Your task to perform on an android device: Open the phone app and click the voicemail tab. Image 0: 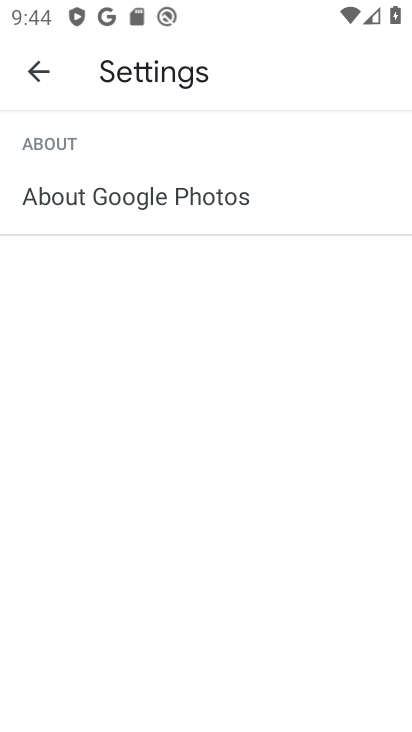
Step 0: press home button
Your task to perform on an android device: Open the phone app and click the voicemail tab. Image 1: 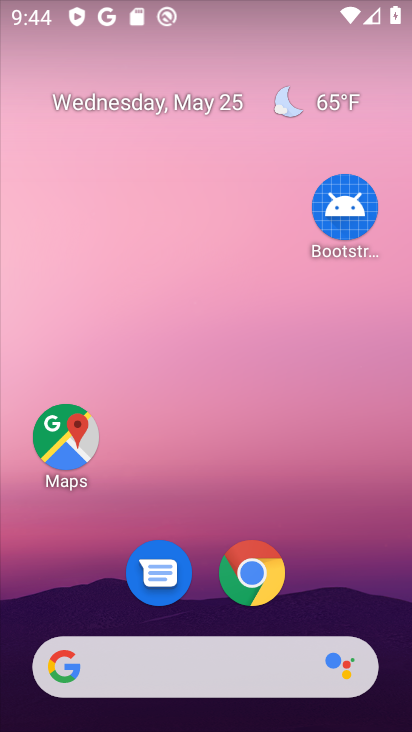
Step 1: drag from (333, 560) to (307, 48)
Your task to perform on an android device: Open the phone app and click the voicemail tab. Image 2: 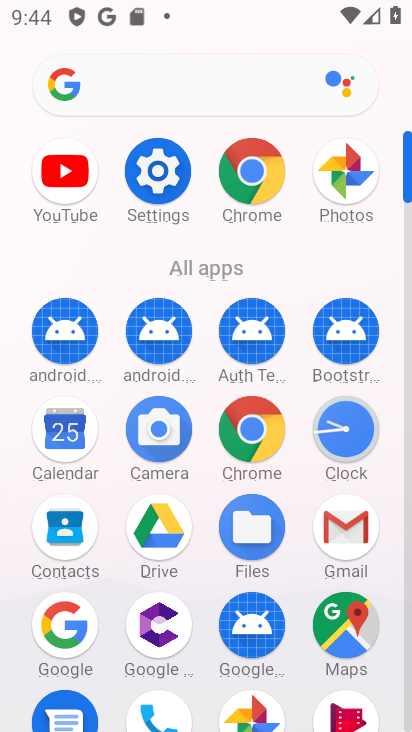
Step 2: drag from (302, 295) to (278, 98)
Your task to perform on an android device: Open the phone app and click the voicemail tab. Image 3: 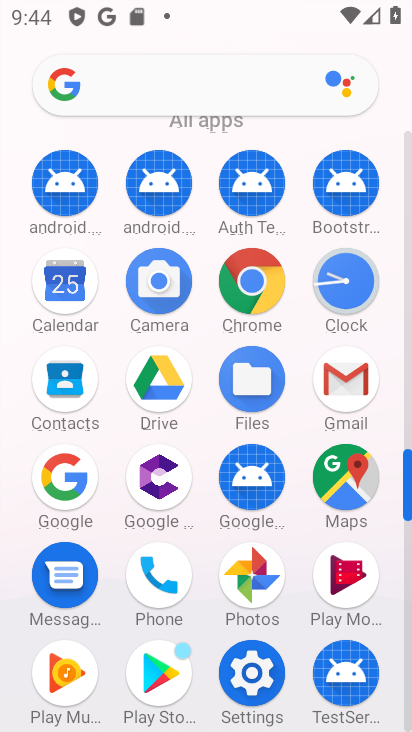
Step 3: click (140, 570)
Your task to perform on an android device: Open the phone app and click the voicemail tab. Image 4: 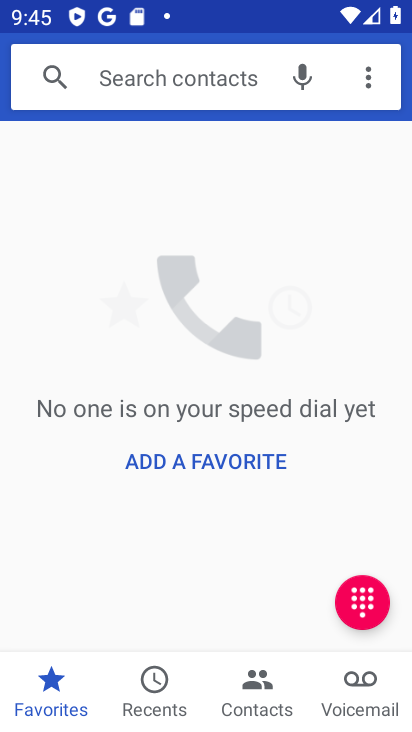
Step 4: click (345, 679)
Your task to perform on an android device: Open the phone app and click the voicemail tab. Image 5: 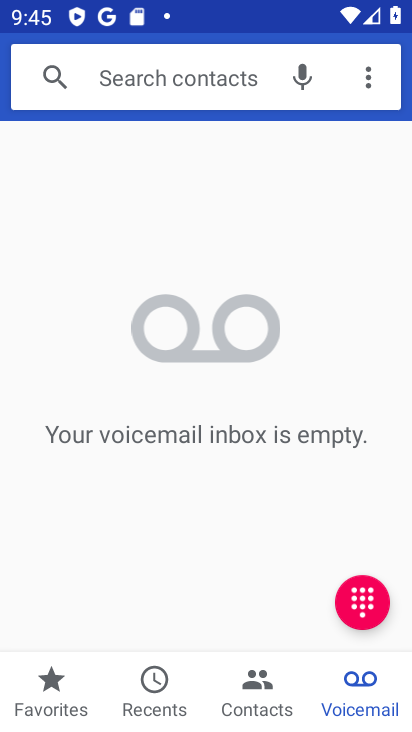
Step 5: task complete